Your task to perform on an android device: change the upload size in google photos Image 0: 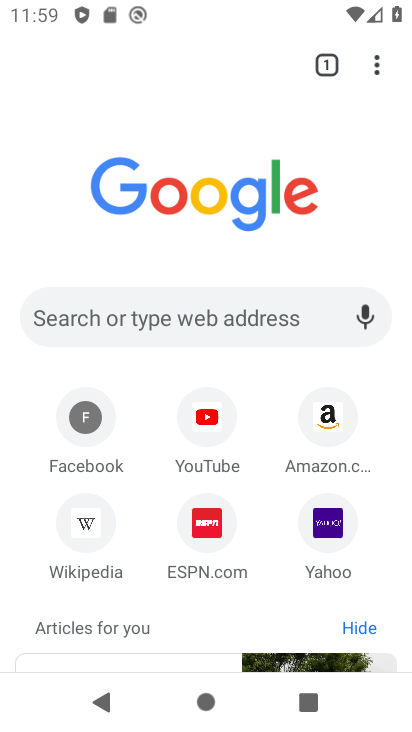
Step 0: press back button
Your task to perform on an android device: change the upload size in google photos Image 1: 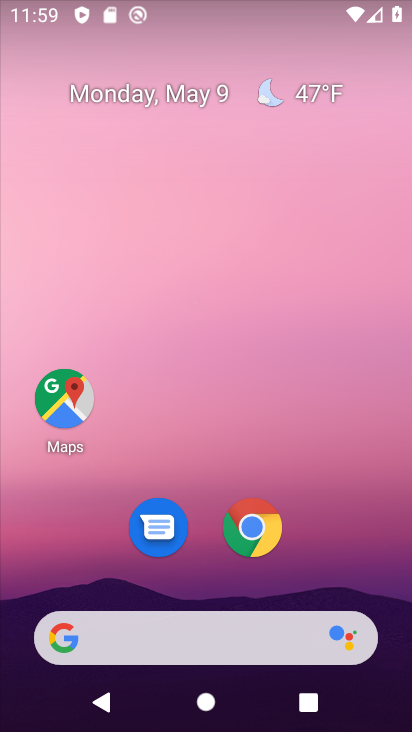
Step 1: drag from (84, 609) to (250, 17)
Your task to perform on an android device: change the upload size in google photos Image 2: 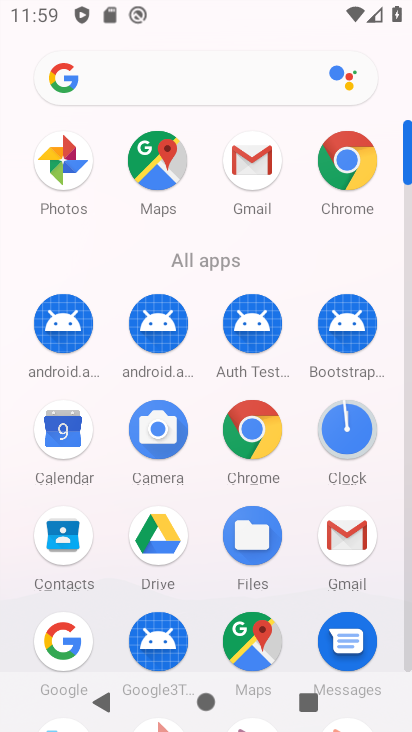
Step 2: drag from (170, 618) to (268, 348)
Your task to perform on an android device: change the upload size in google photos Image 3: 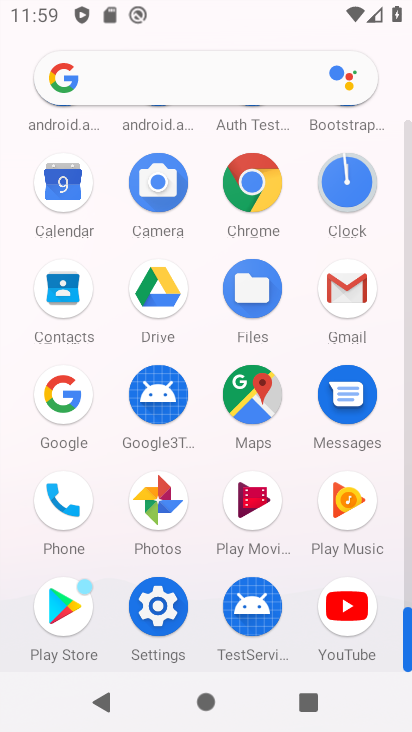
Step 3: click (166, 496)
Your task to perform on an android device: change the upload size in google photos Image 4: 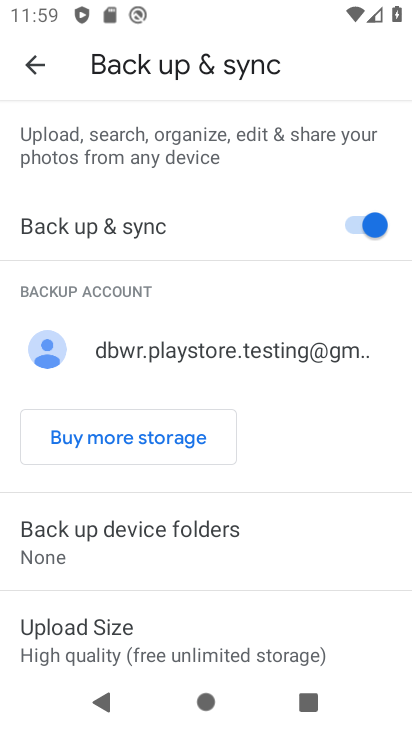
Step 4: drag from (173, 624) to (222, 501)
Your task to perform on an android device: change the upload size in google photos Image 5: 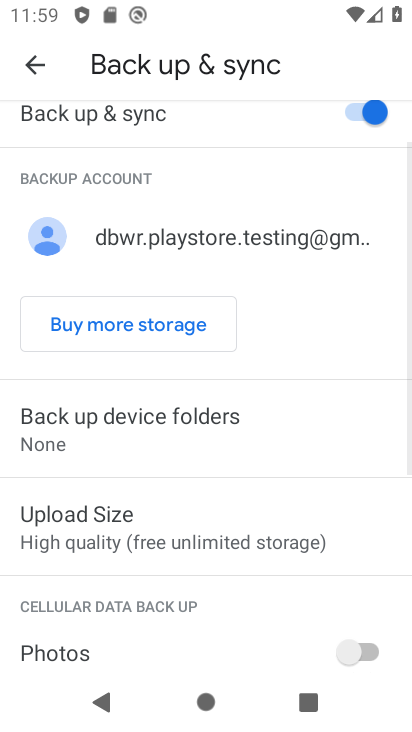
Step 5: click (197, 508)
Your task to perform on an android device: change the upload size in google photos Image 6: 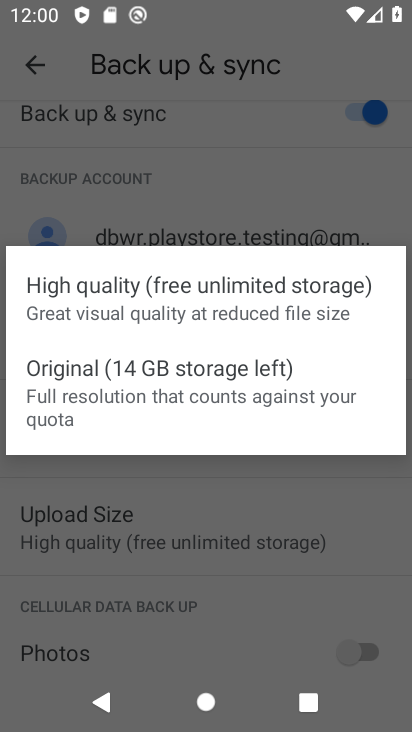
Step 6: click (188, 394)
Your task to perform on an android device: change the upload size in google photos Image 7: 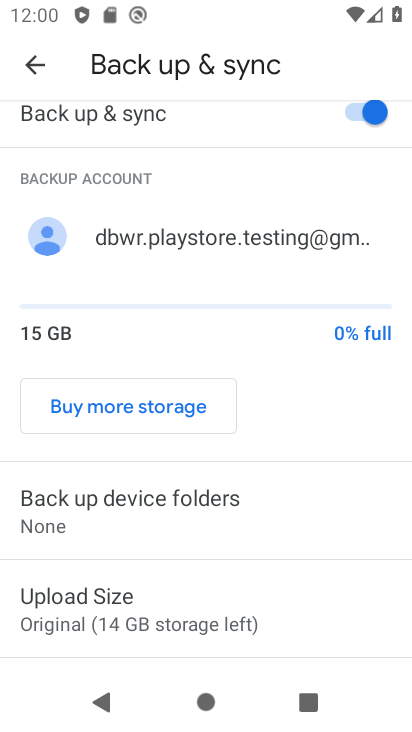
Step 7: task complete